Your task to perform on an android device: Search for vegetarian restaurants on Maps Image 0: 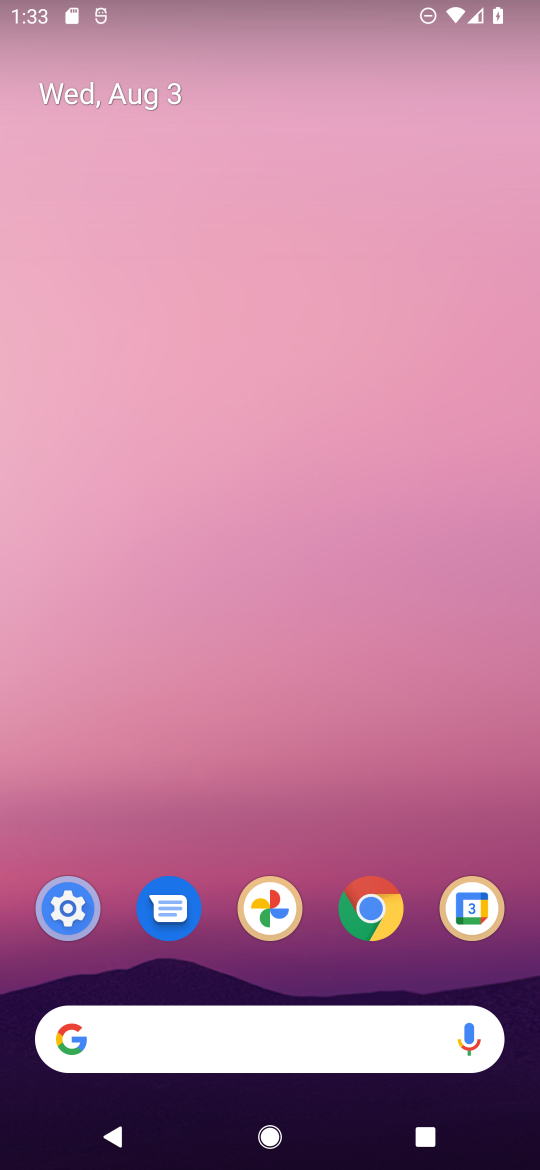
Step 0: drag from (244, 950) to (215, 141)
Your task to perform on an android device: Search for vegetarian restaurants on Maps Image 1: 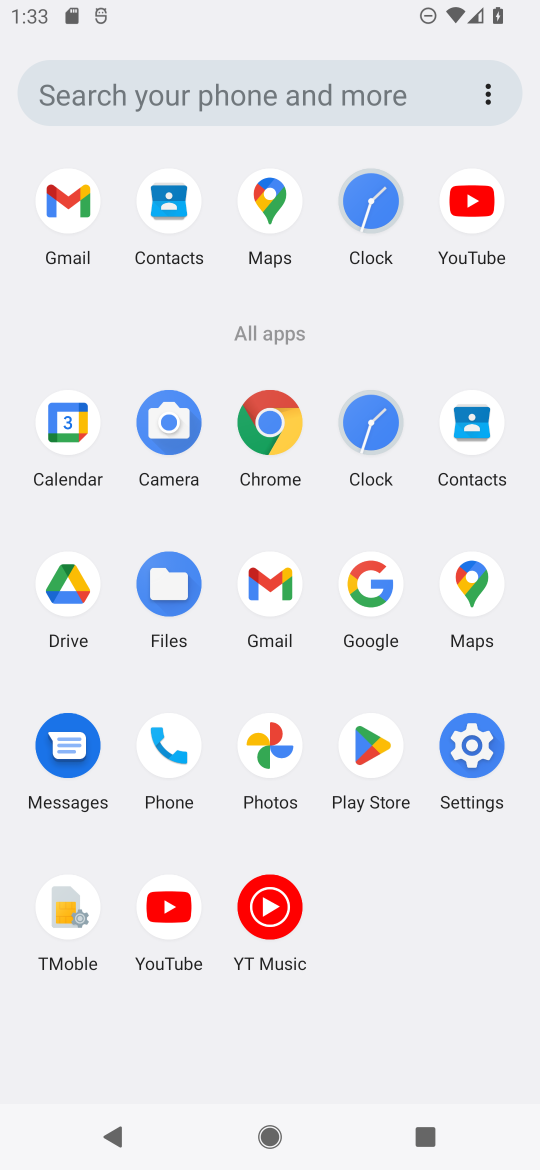
Step 1: click (257, 190)
Your task to perform on an android device: Search for vegetarian restaurants on Maps Image 2: 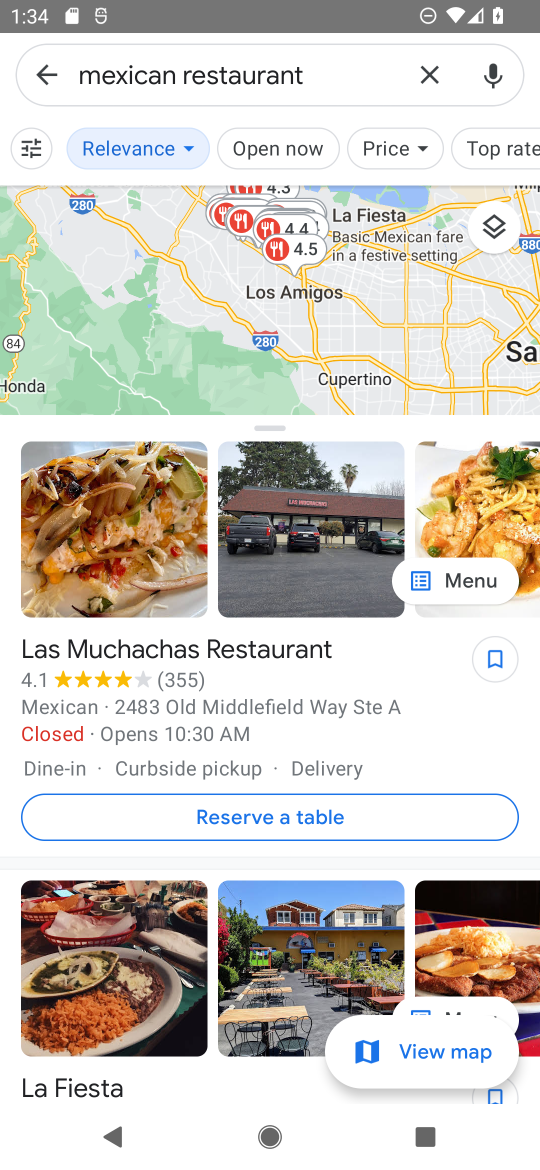
Step 2: click (59, 118)
Your task to perform on an android device: Search for vegetarian restaurants on Maps Image 3: 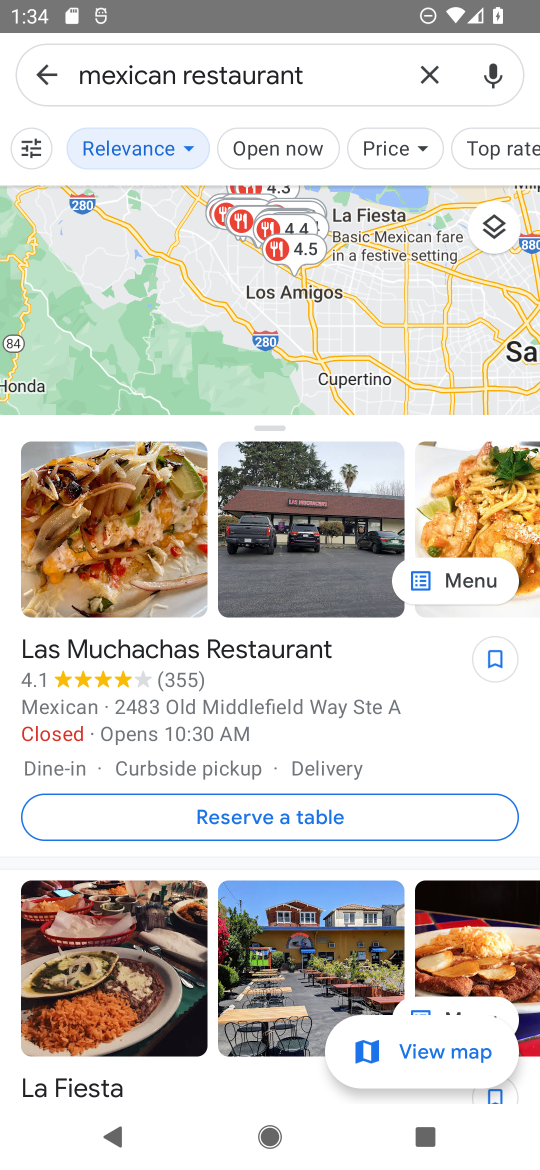
Step 3: click (47, 77)
Your task to perform on an android device: Search for vegetarian restaurants on Maps Image 4: 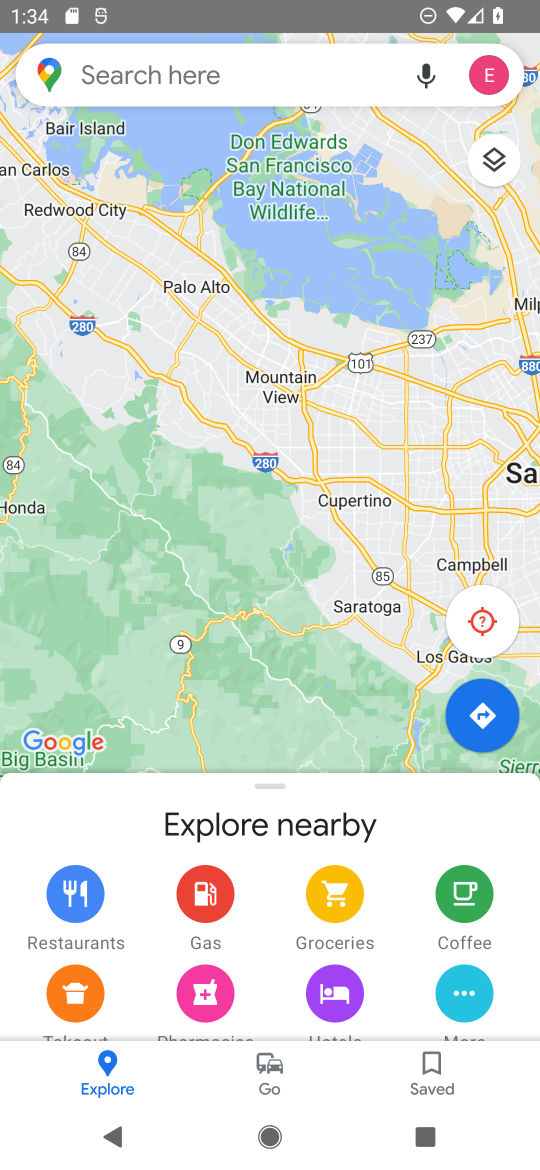
Step 4: click (236, 78)
Your task to perform on an android device: Search for vegetarian restaurants on Maps Image 5: 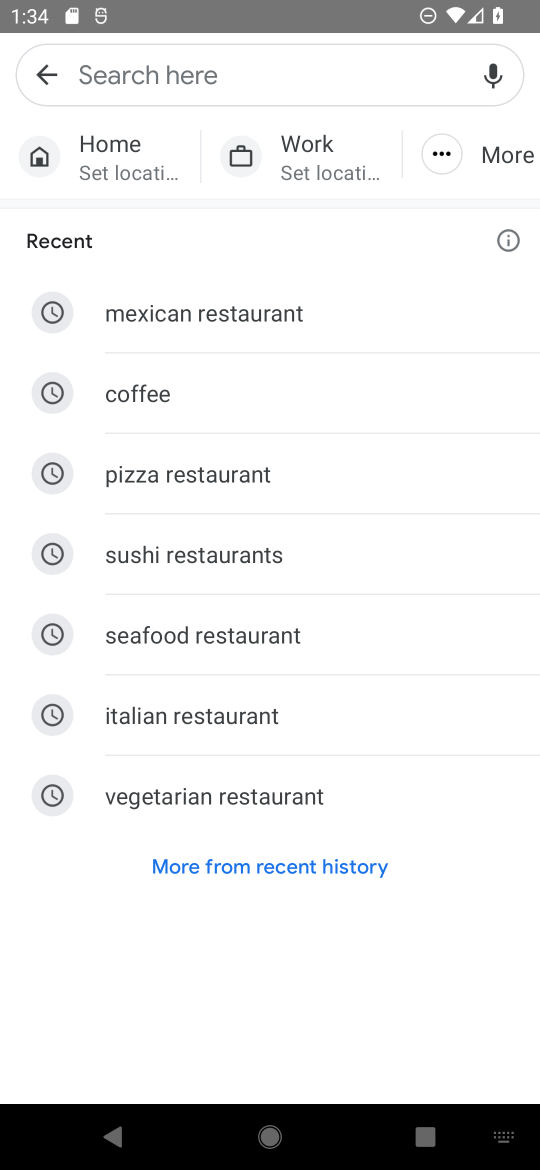
Step 5: type "vegetarian restaurants"
Your task to perform on an android device: Search for vegetarian restaurants on Maps Image 6: 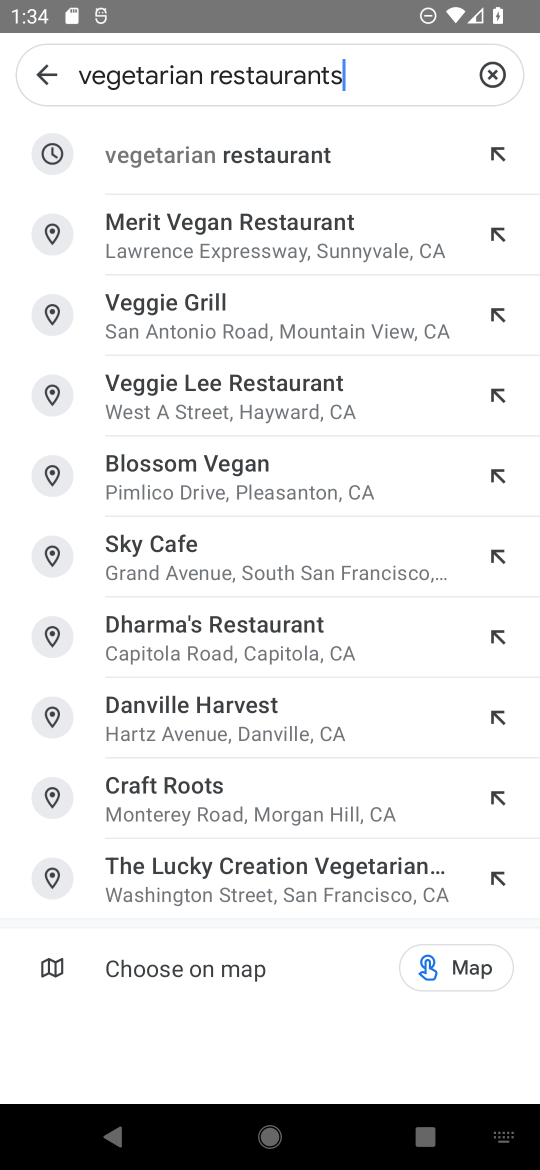
Step 6: click (304, 150)
Your task to perform on an android device: Search for vegetarian restaurants on Maps Image 7: 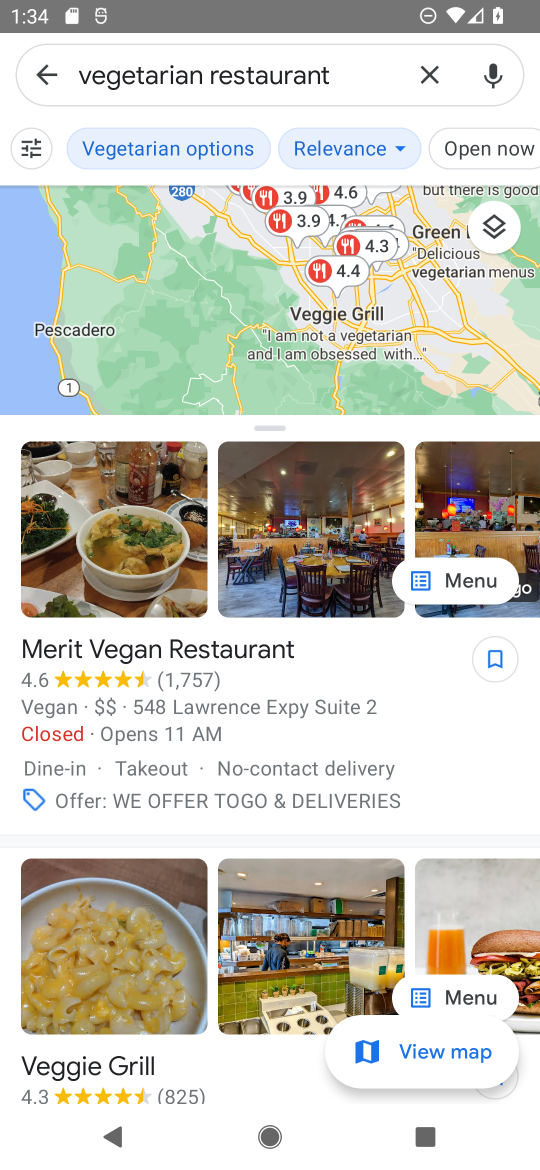
Step 7: task complete